Your task to perform on an android device: Go to calendar. Show me events next week Image 0: 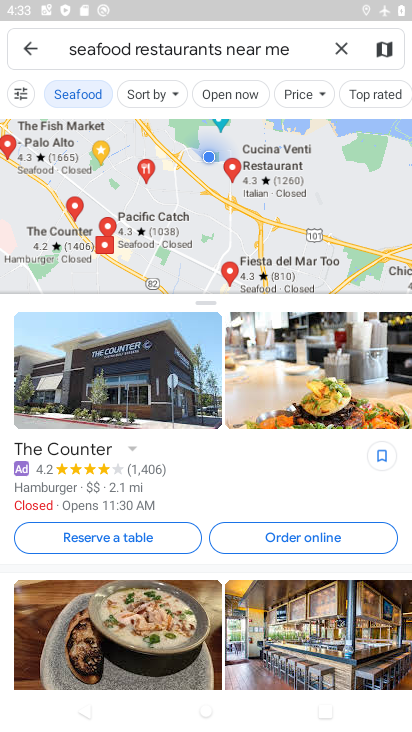
Step 0: press home button
Your task to perform on an android device: Go to calendar. Show me events next week Image 1: 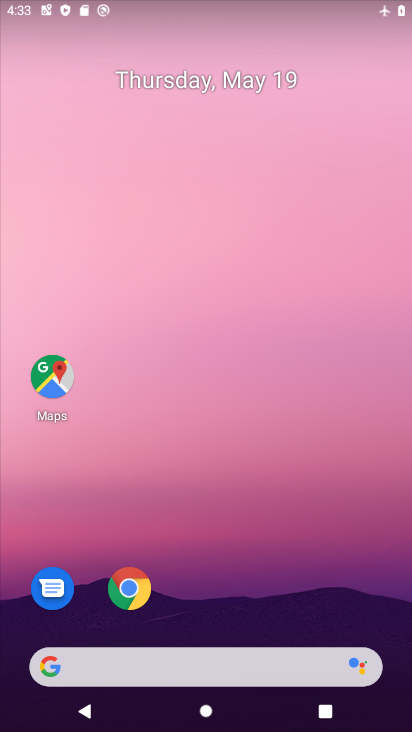
Step 1: drag from (152, 512) to (275, 28)
Your task to perform on an android device: Go to calendar. Show me events next week Image 2: 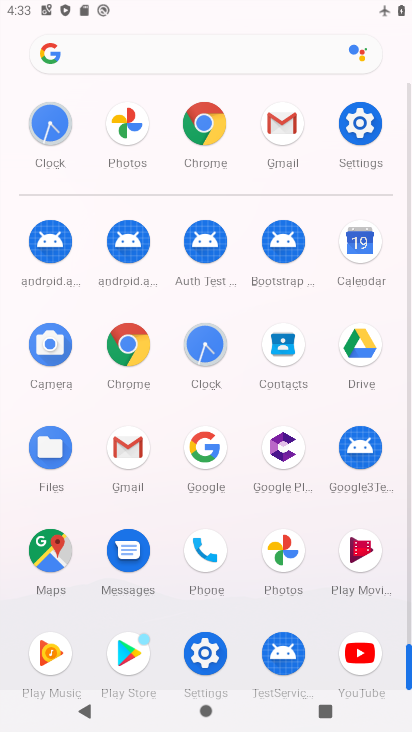
Step 2: click (358, 251)
Your task to perform on an android device: Go to calendar. Show me events next week Image 3: 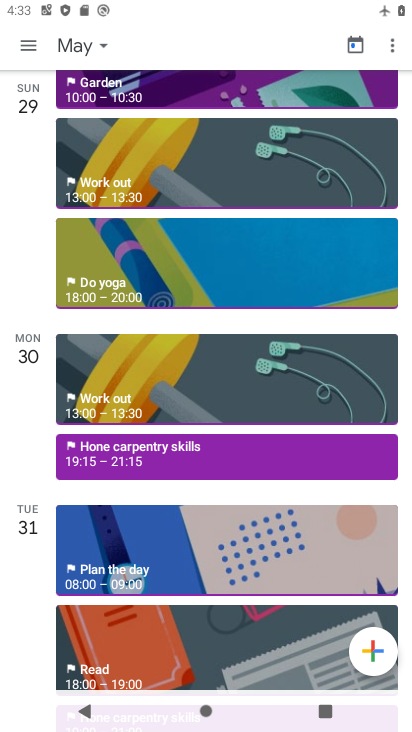
Step 3: click (34, 36)
Your task to perform on an android device: Go to calendar. Show me events next week Image 4: 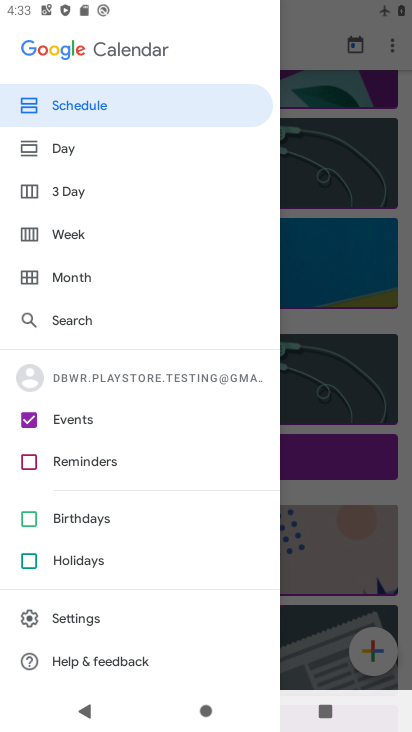
Step 4: click (81, 237)
Your task to perform on an android device: Go to calendar. Show me events next week Image 5: 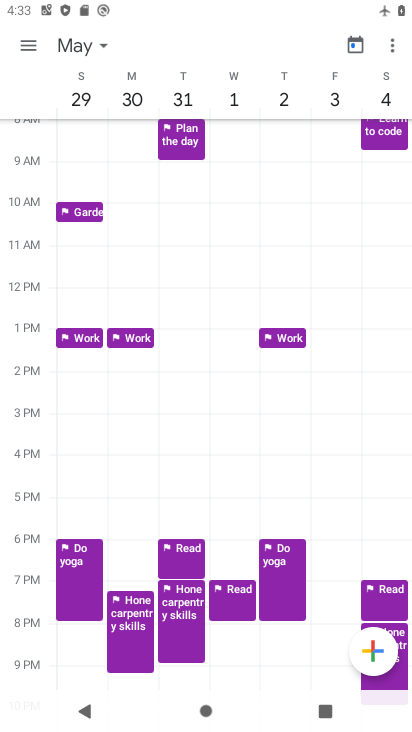
Step 5: task complete